Your task to perform on an android device: toggle translation in the chrome app Image 0: 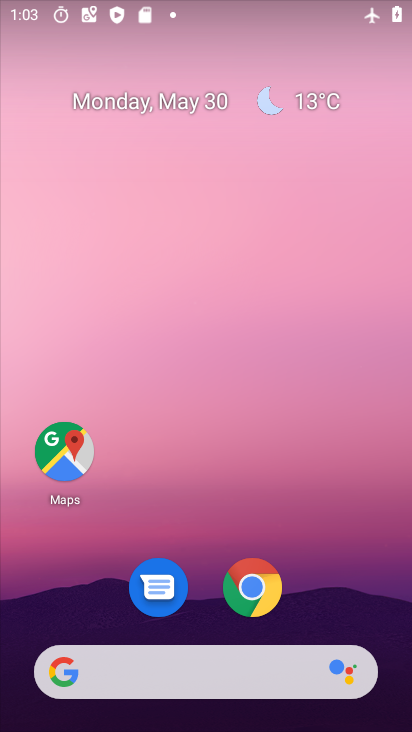
Step 0: click (254, 592)
Your task to perform on an android device: toggle translation in the chrome app Image 1: 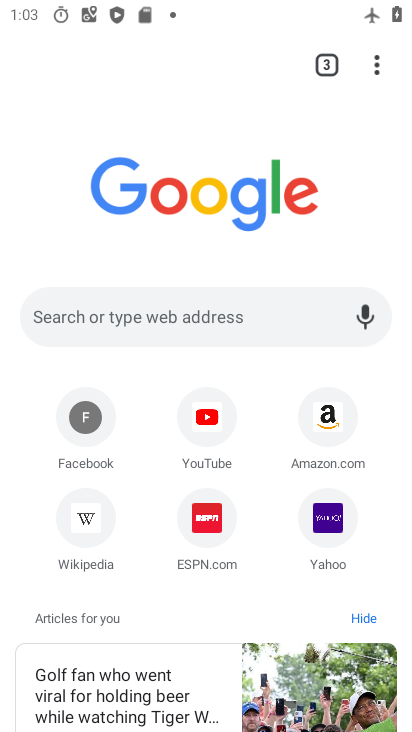
Step 1: drag from (373, 55) to (228, 539)
Your task to perform on an android device: toggle translation in the chrome app Image 2: 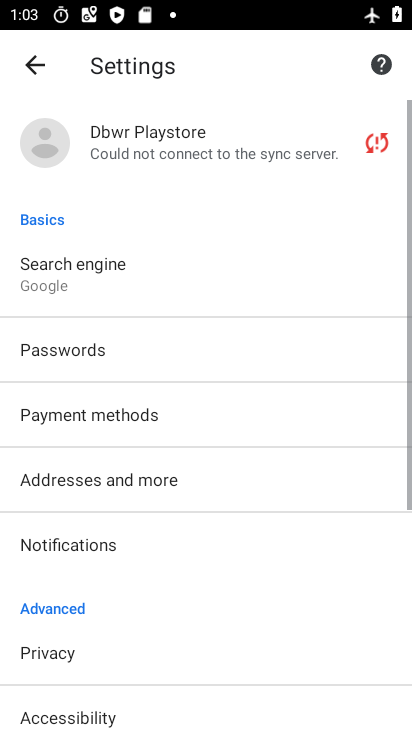
Step 2: drag from (250, 268) to (256, 213)
Your task to perform on an android device: toggle translation in the chrome app Image 3: 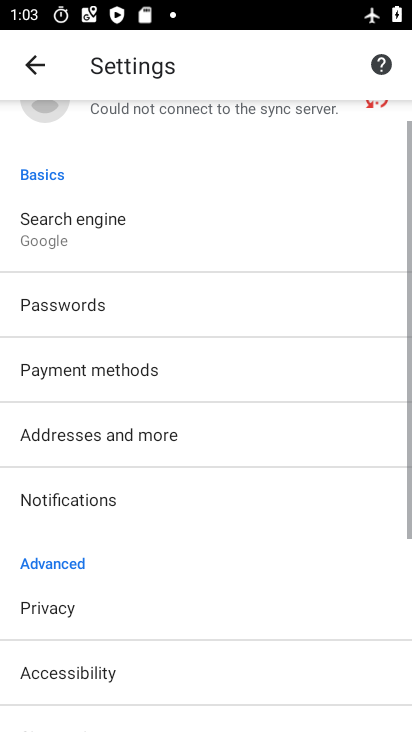
Step 3: click (256, 202)
Your task to perform on an android device: toggle translation in the chrome app Image 4: 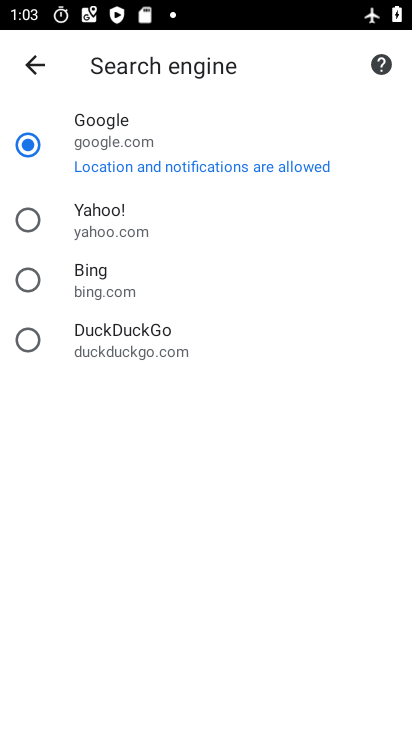
Step 4: click (37, 54)
Your task to perform on an android device: toggle translation in the chrome app Image 5: 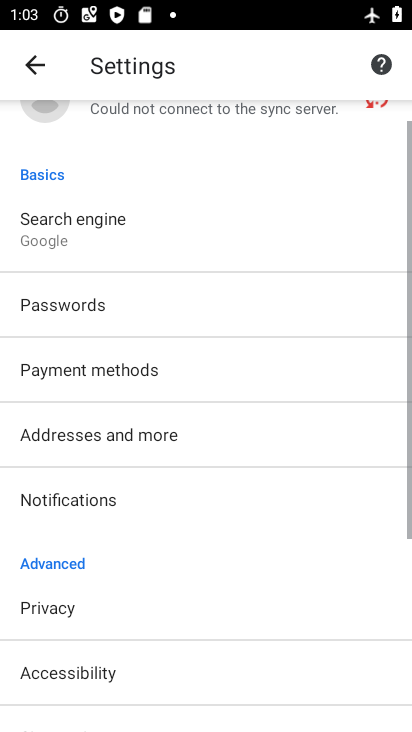
Step 5: drag from (210, 523) to (255, 245)
Your task to perform on an android device: toggle translation in the chrome app Image 6: 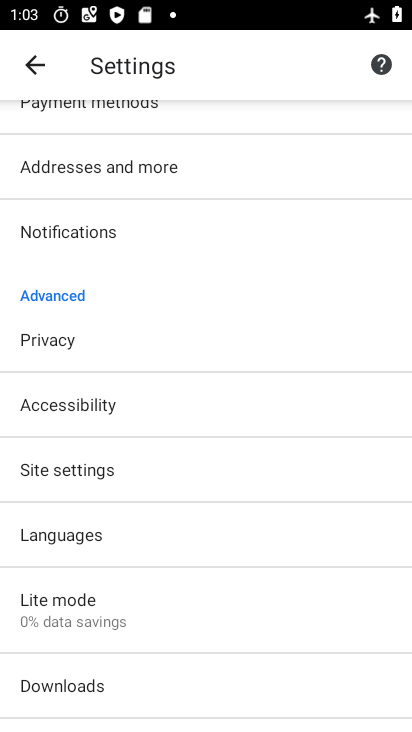
Step 6: click (105, 541)
Your task to perform on an android device: toggle translation in the chrome app Image 7: 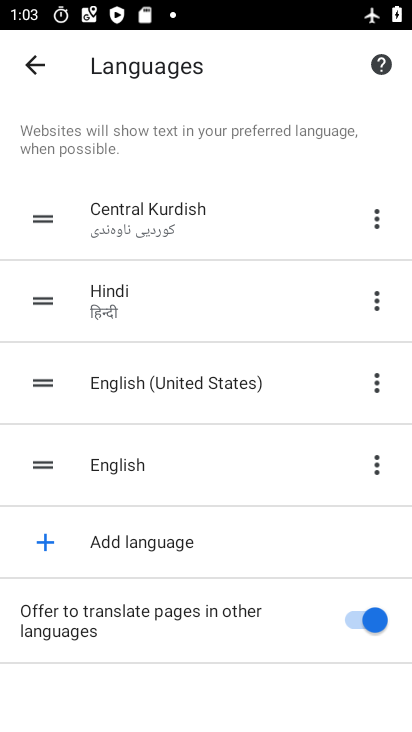
Step 7: click (372, 637)
Your task to perform on an android device: toggle translation in the chrome app Image 8: 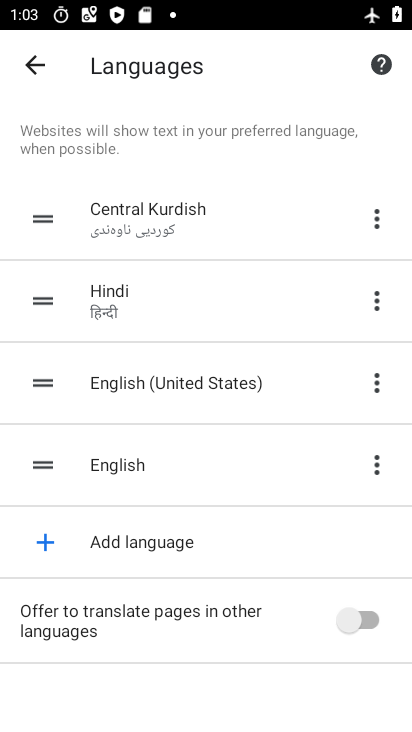
Step 8: task complete